Your task to perform on an android device: uninstall "Google Sheets" Image 0: 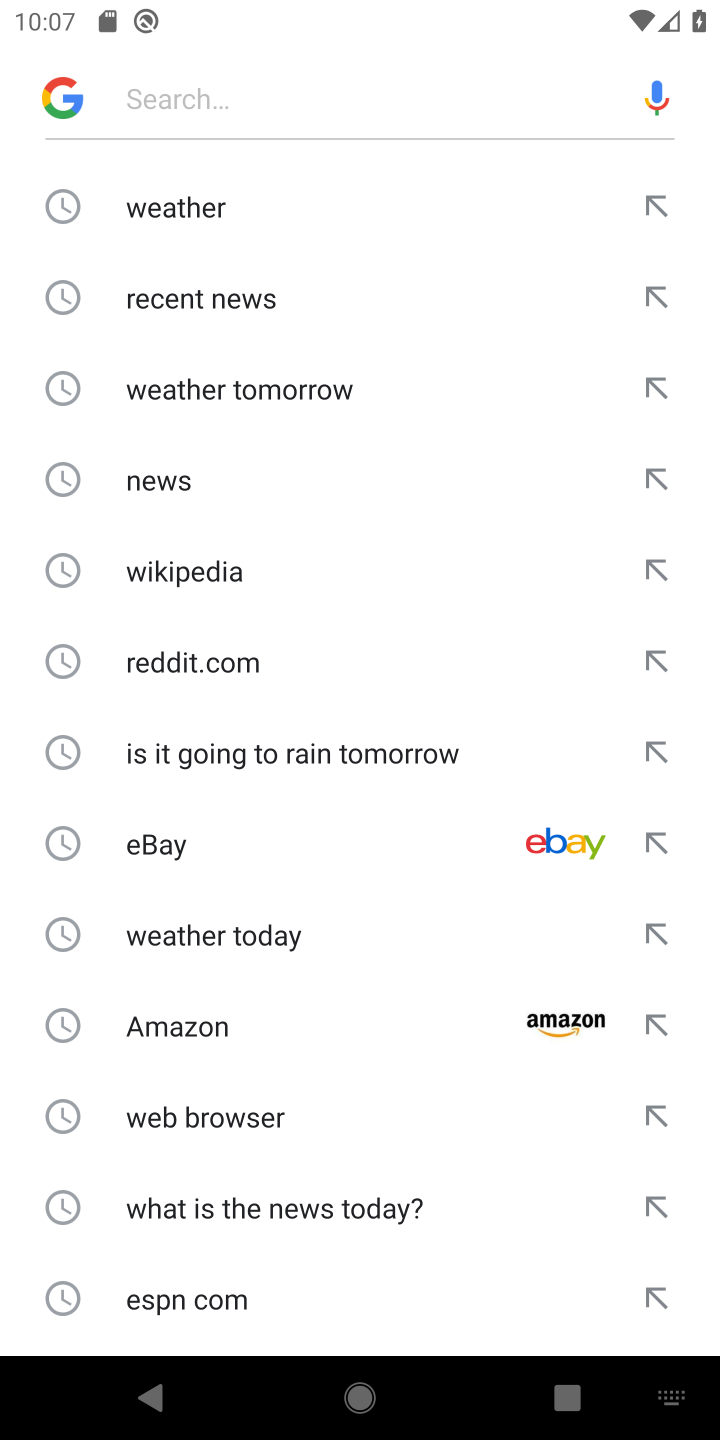
Step 0: press home button
Your task to perform on an android device: uninstall "Google Sheets" Image 1: 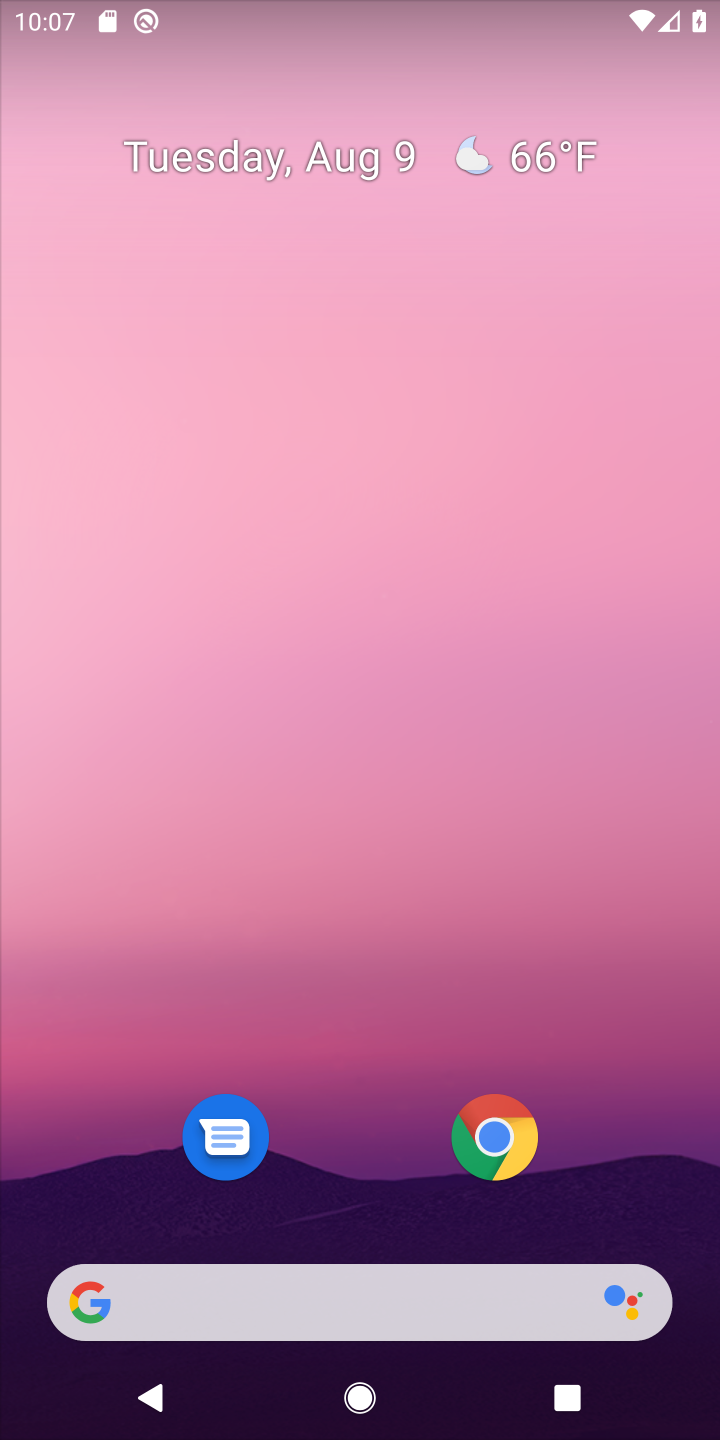
Step 1: drag from (364, 1174) to (372, 331)
Your task to perform on an android device: uninstall "Google Sheets" Image 2: 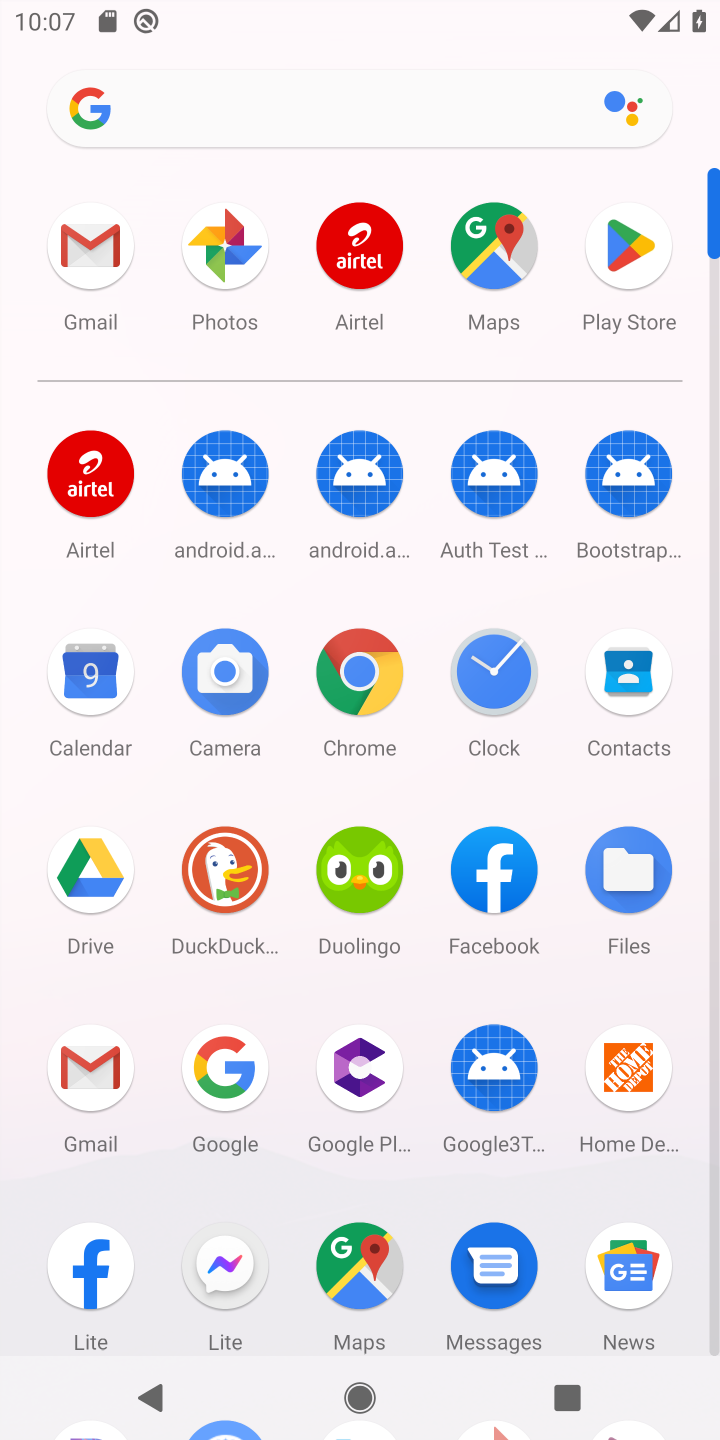
Step 2: click (623, 277)
Your task to perform on an android device: uninstall "Google Sheets" Image 3: 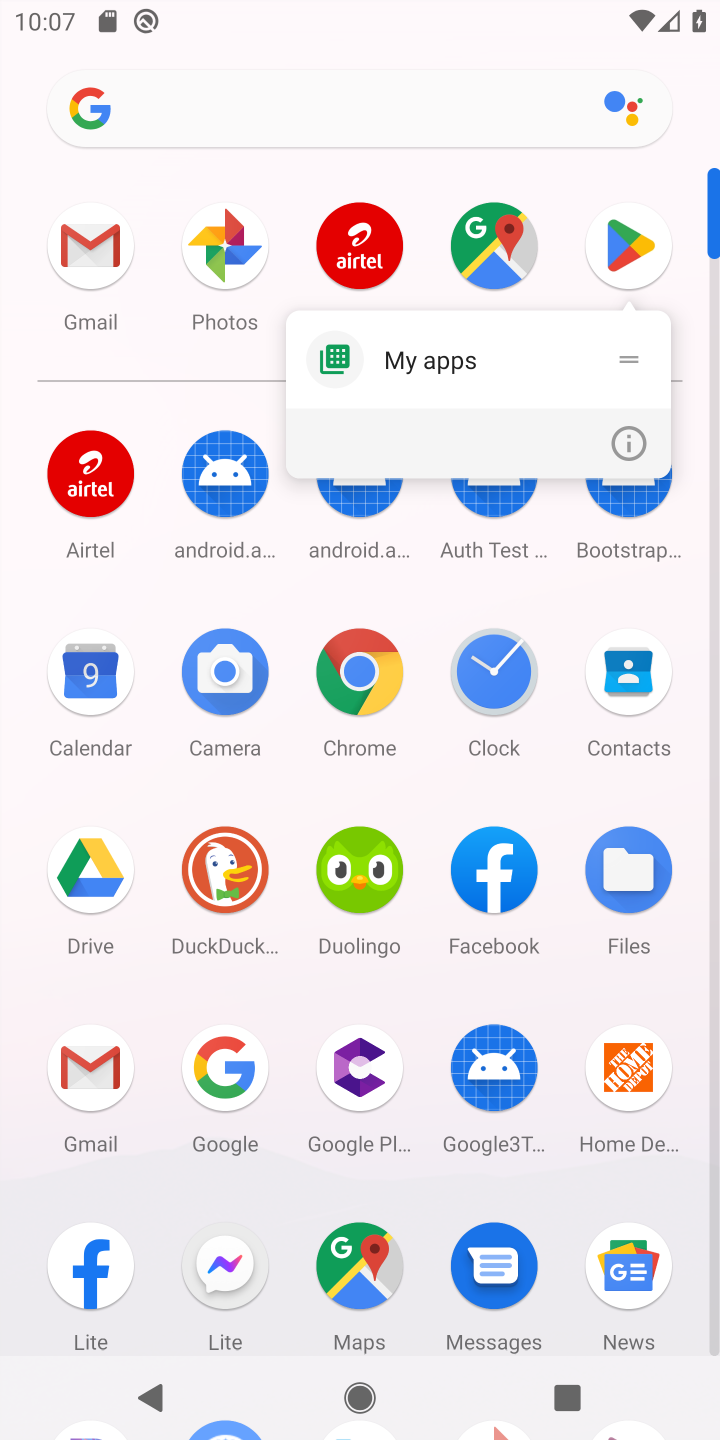
Step 3: click (602, 230)
Your task to perform on an android device: uninstall "Google Sheets" Image 4: 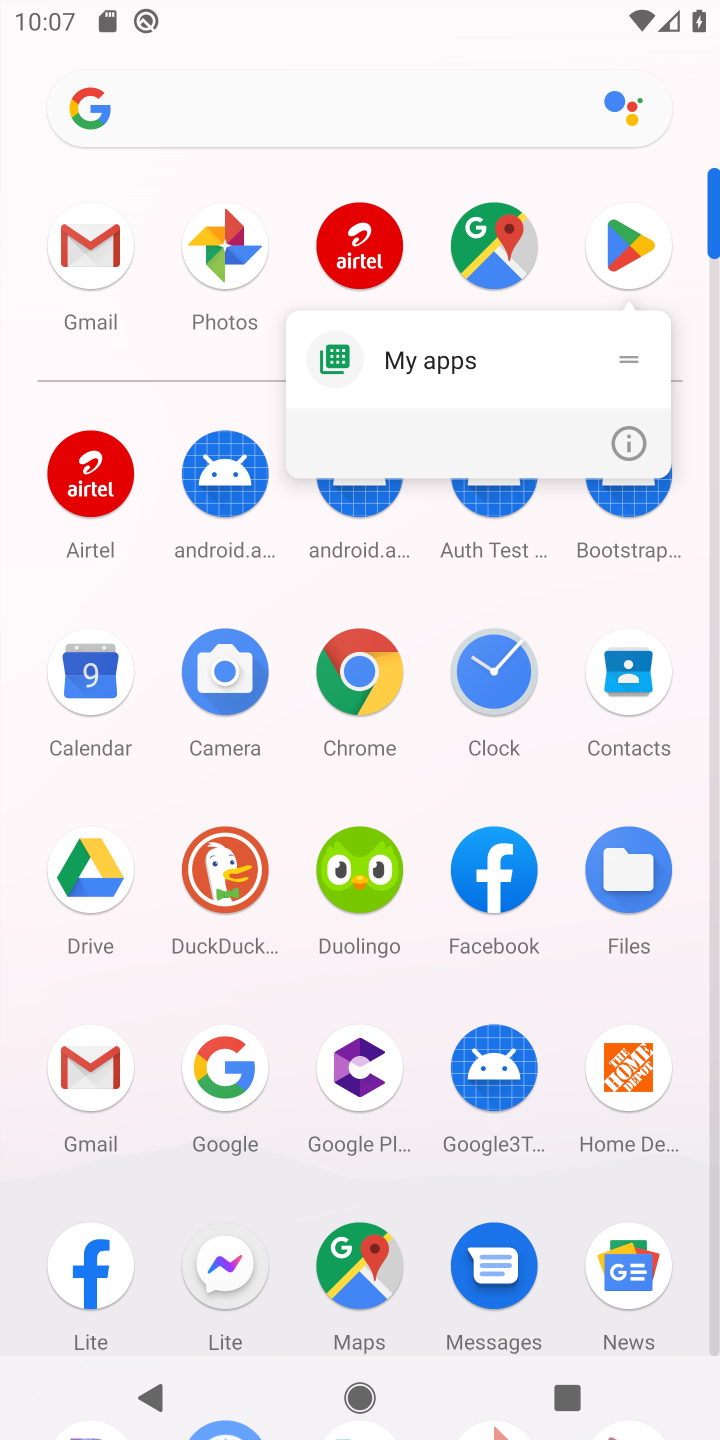
Step 4: click (617, 235)
Your task to perform on an android device: uninstall "Google Sheets" Image 5: 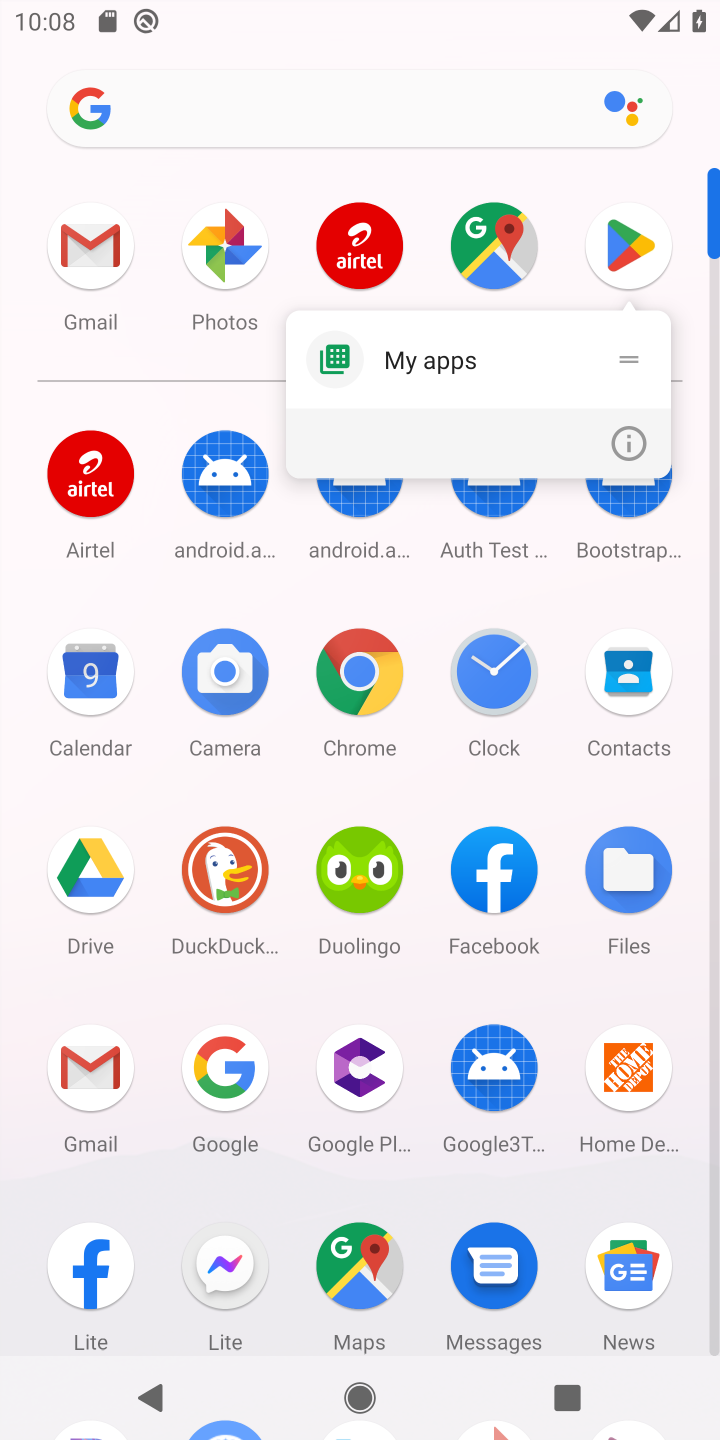
Step 5: click (617, 235)
Your task to perform on an android device: uninstall "Google Sheets" Image 6: 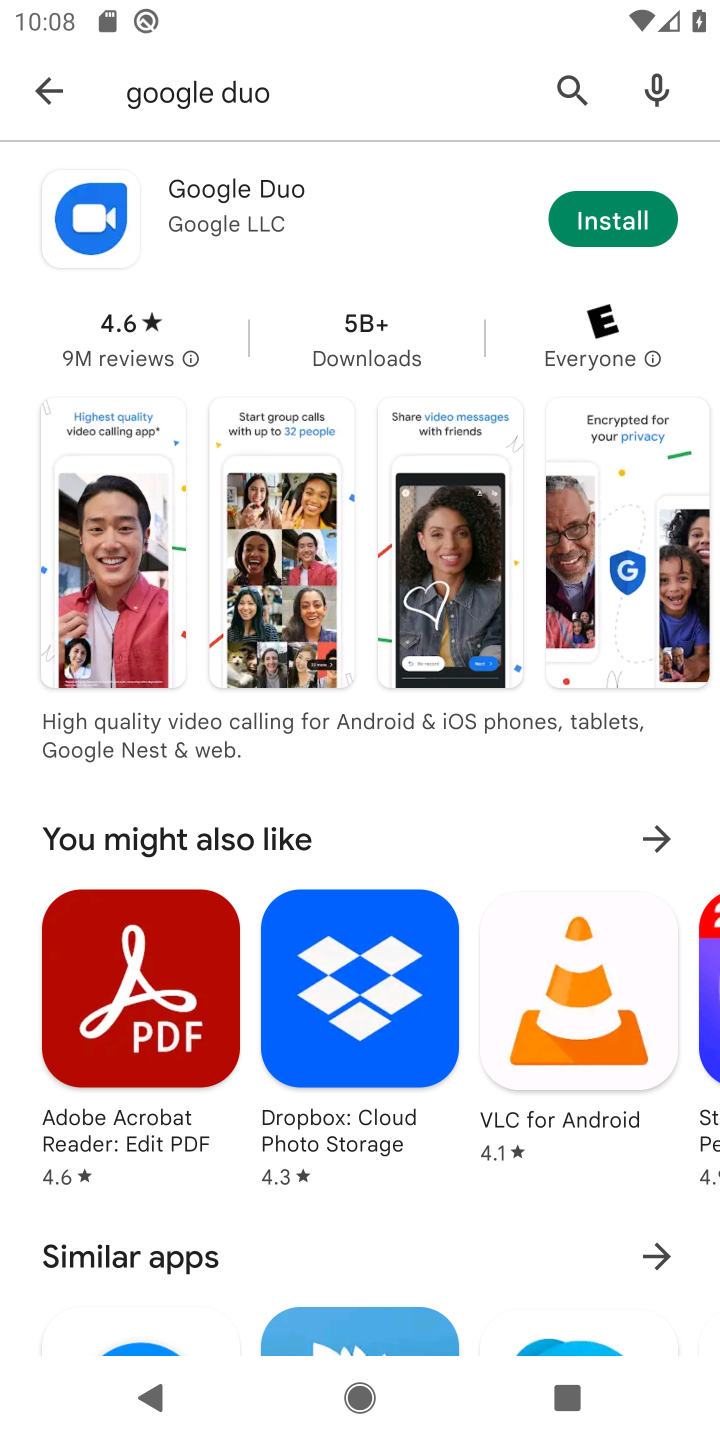
Step 6: click (567, 73)
Your task to perform on an android device: uninstall "Google Sheets" Image 7: 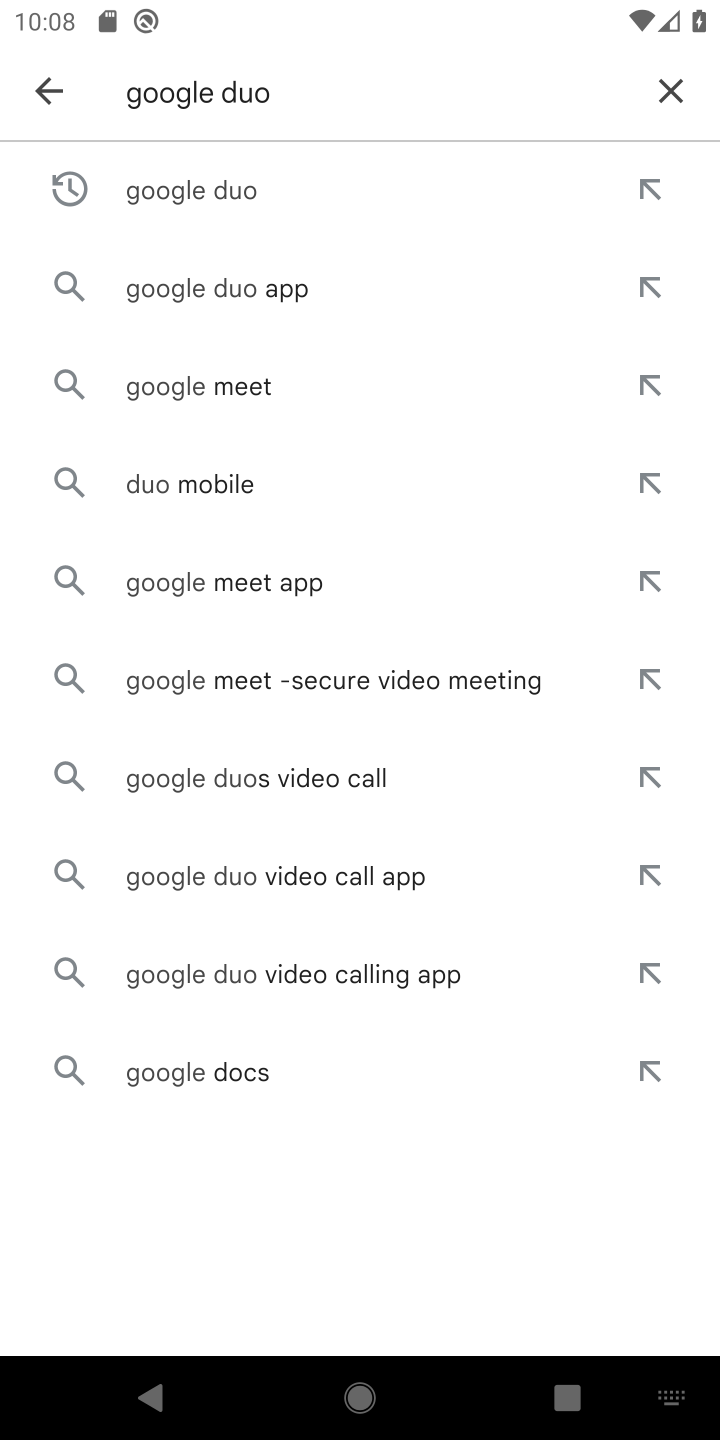
Step 7: click (680, 81)
Your task to perform on an android device: uninstall "Google Sheets" Image 8: 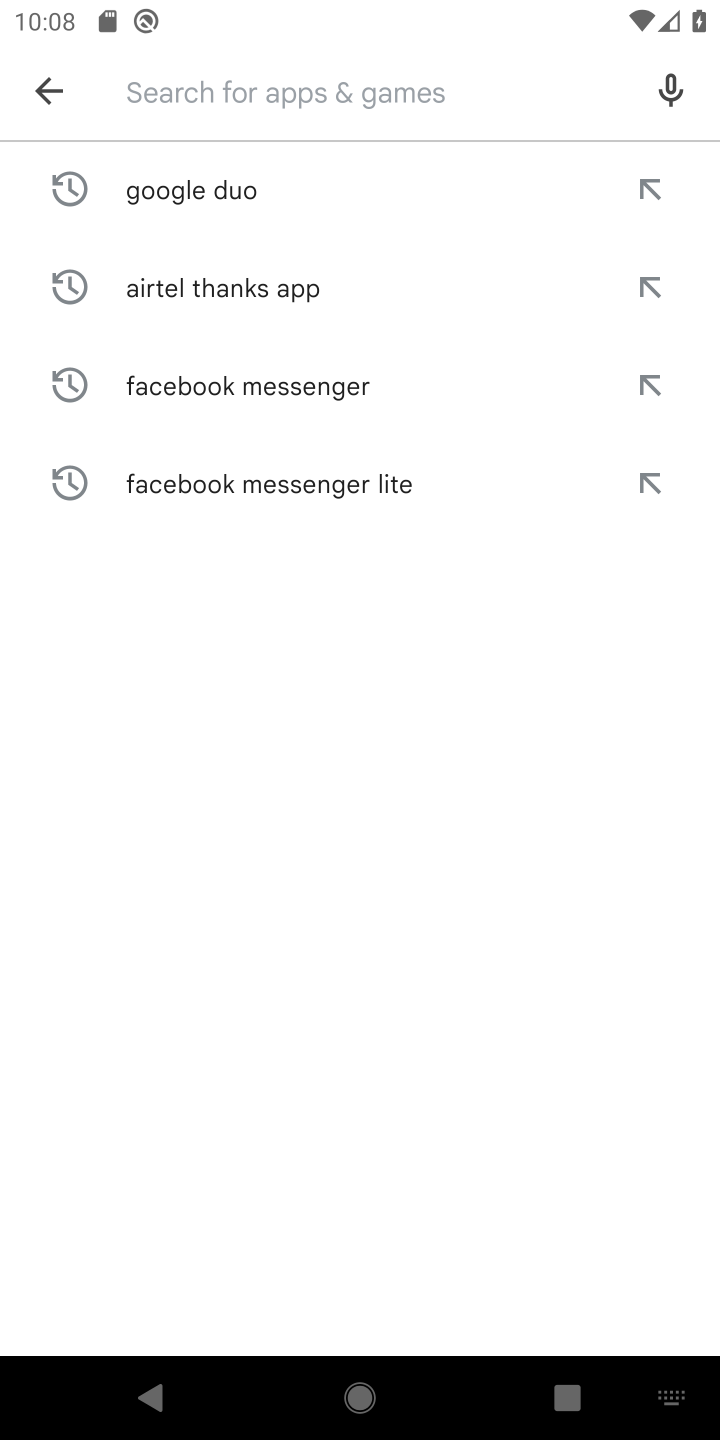
Step 8: type "Google Sheets"
Your task to perform on an android device: uninstall "Google Sheets" Image 9: 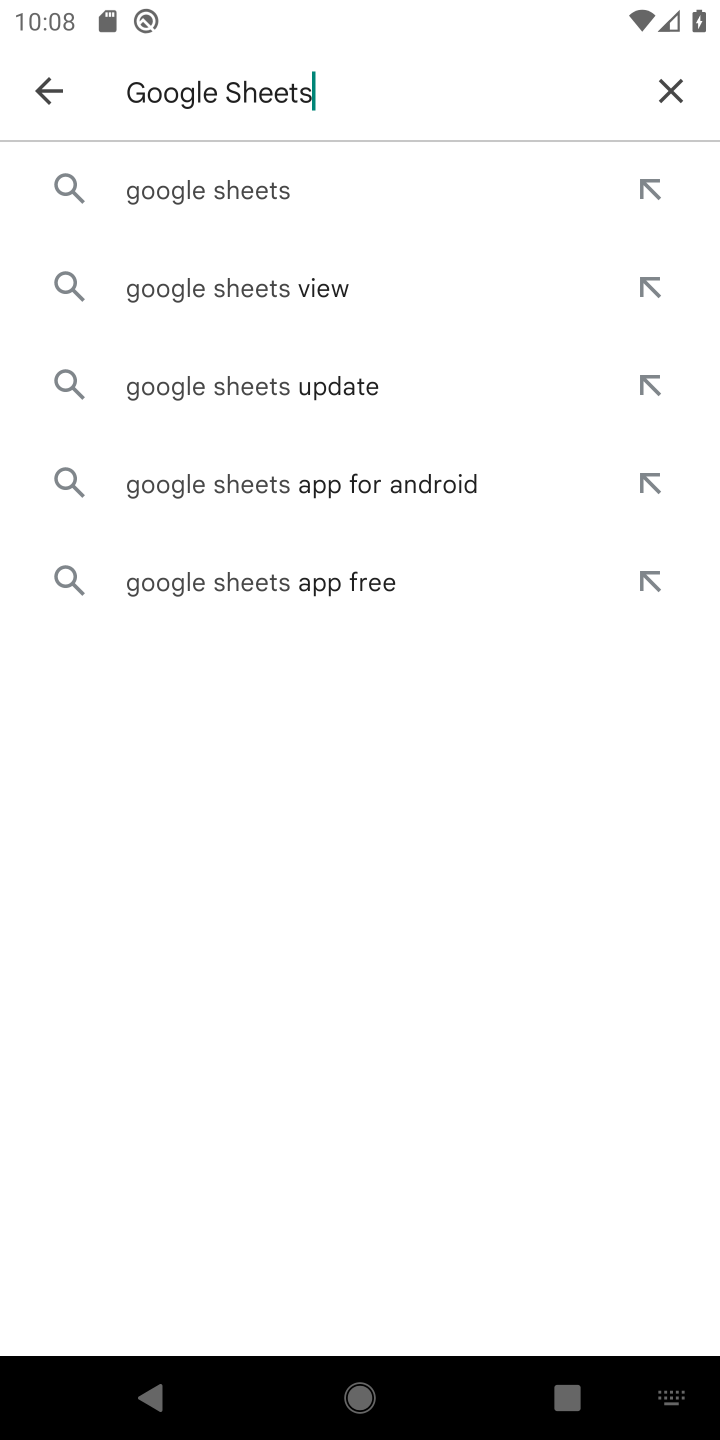
Step 9: click (220, 188)
Your task to perform on an android device: uninstall "Google Sheets" Image 10: 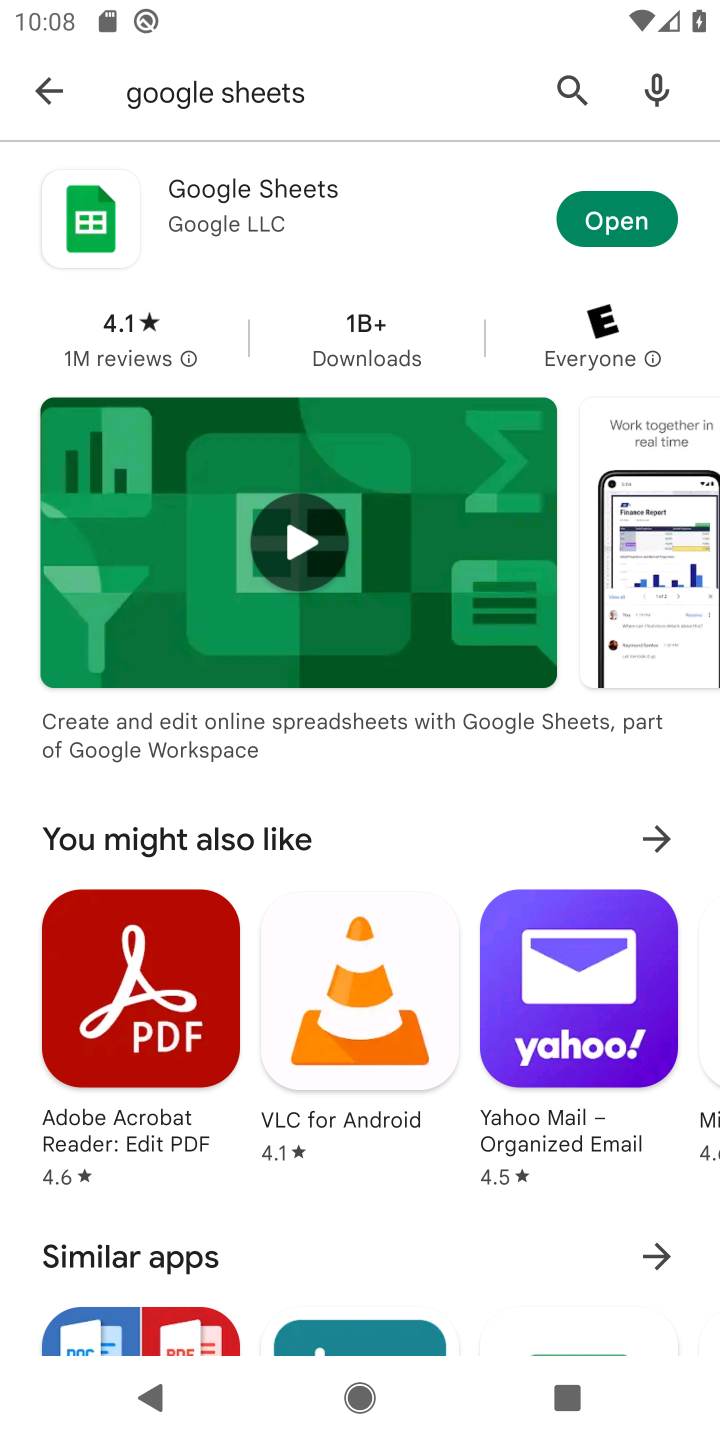
Step 10: click (382, 203)
Your task to perform on an android device: uninstall "Google Sheets" Image 11: 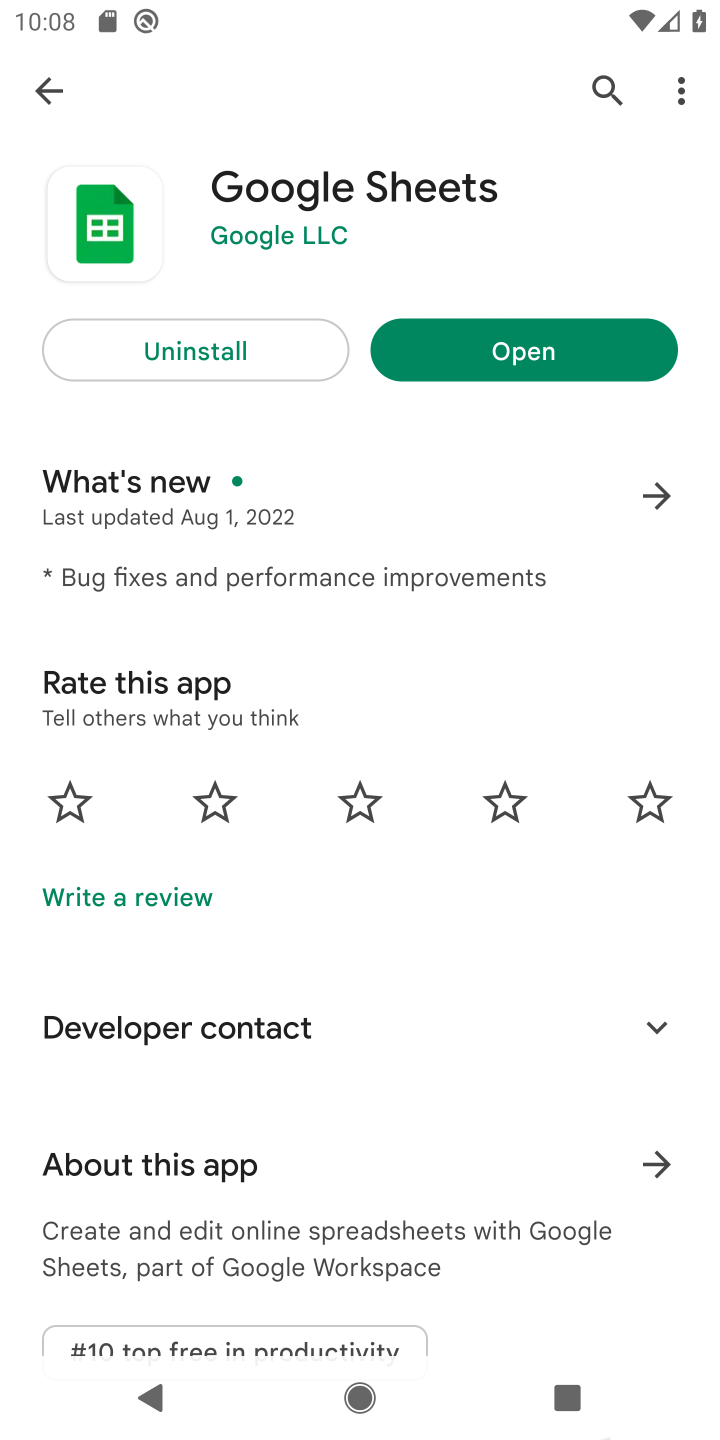
Step 11: click (216, 333)
Your task to perform on an android device: uninstall "Google Sheets" Image 12: 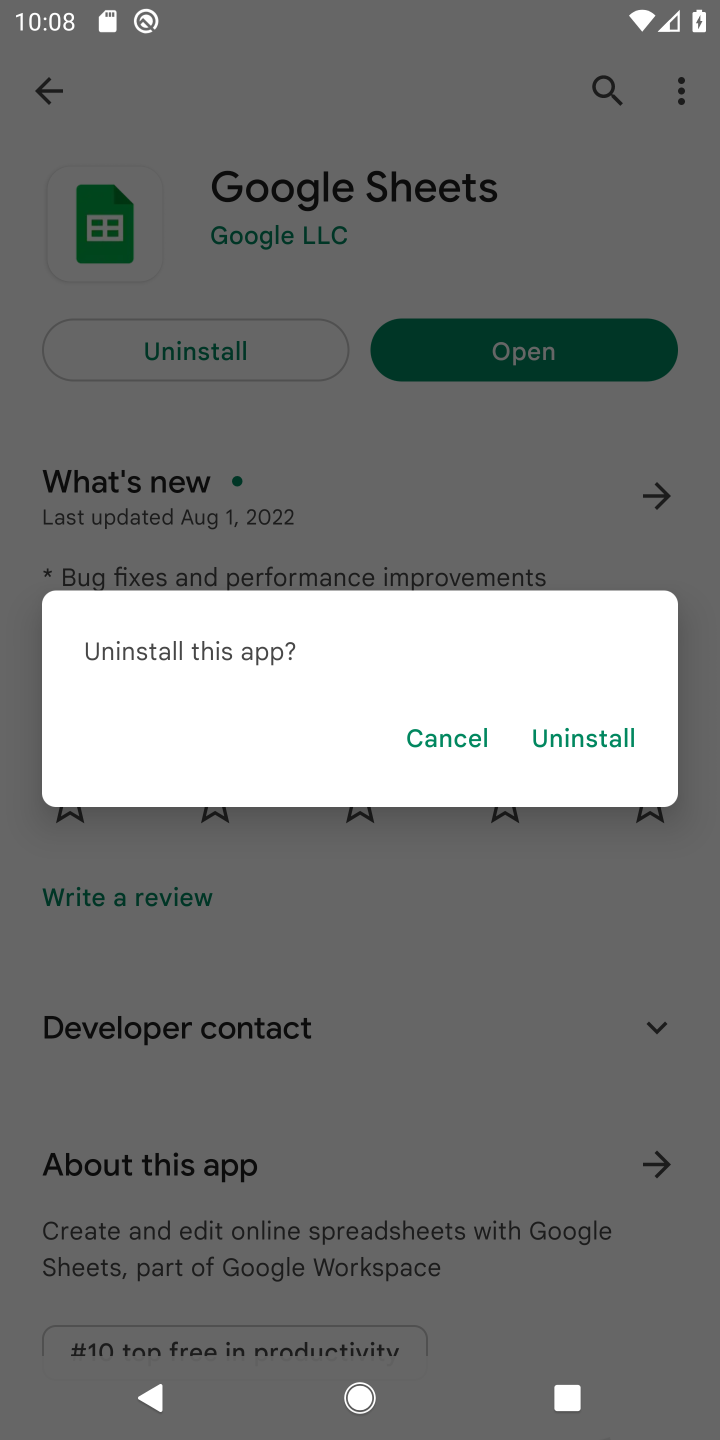
Step 12: click (586, 736)
Your task to perform on an android device: uninstall "Google Sheets" Image 13: 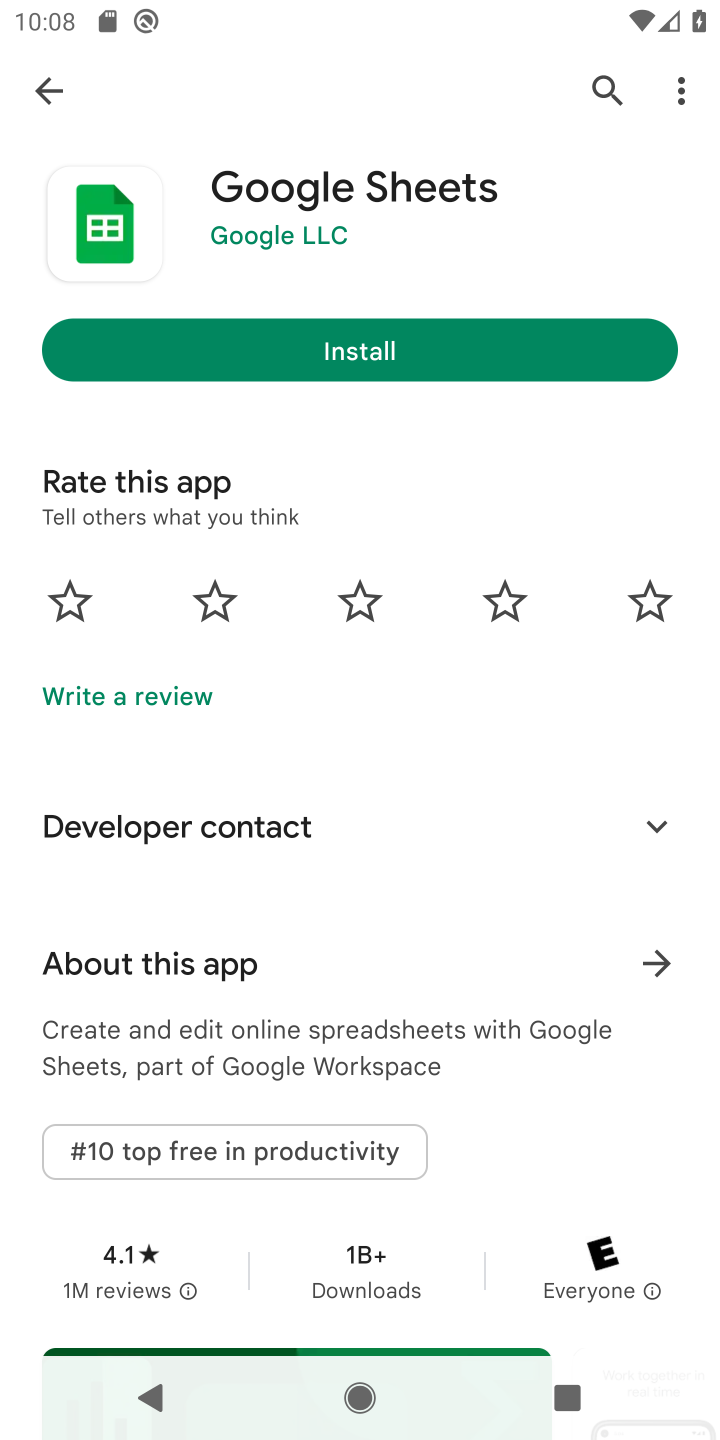
Step 13: task complete